Your task to perform on an android device: empty trash in google photos Image 0: 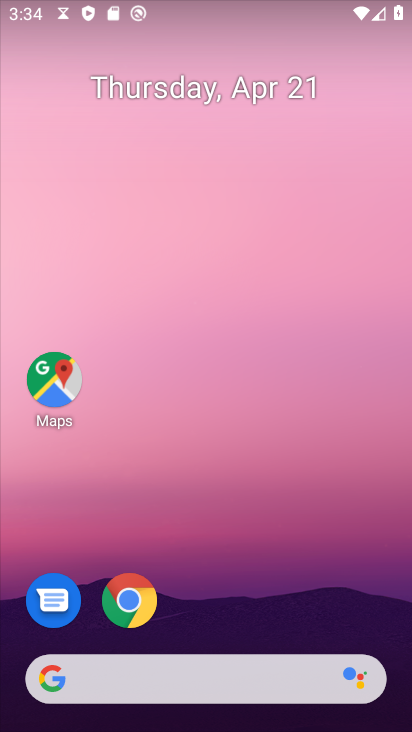
Step 0: drag from (237, 580) to (211, 42)
Your task to perform on an android device: empty trash in google photos Image 1: 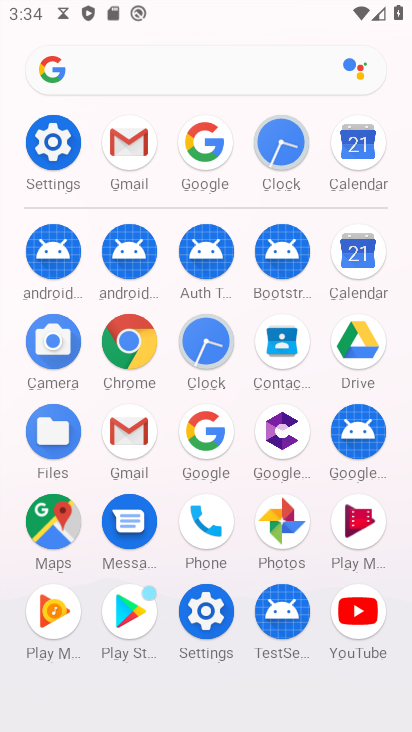
Step 1: click (282, 520)
Your task to perform on an android device: empty trash in google photos Image 2: 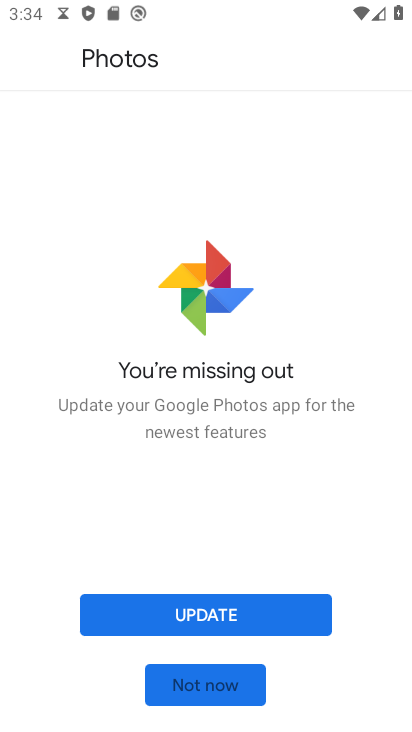
Step 2: click (231, 605)
Your task to perform on an android device: empty trash in google photos Image 3: 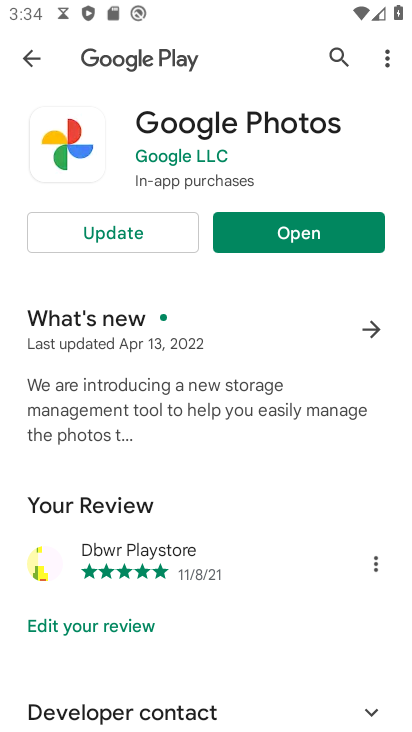
Step 3: click (142, 221)
Your task to perform on an android device: empty trash in google photos Image 4: 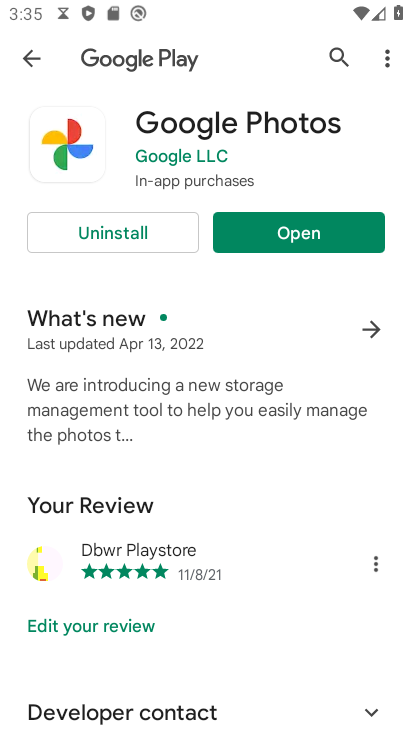
Step 4: click (291, 234)
Your task to perform on an android device: empty trash in google photos Image 5: 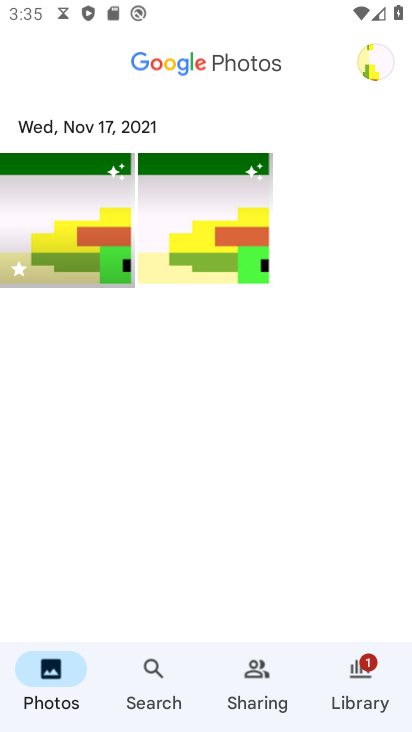
Step 5: click (363, 675)
Your task to perform on an android device: empty trash in google photos Image 6: 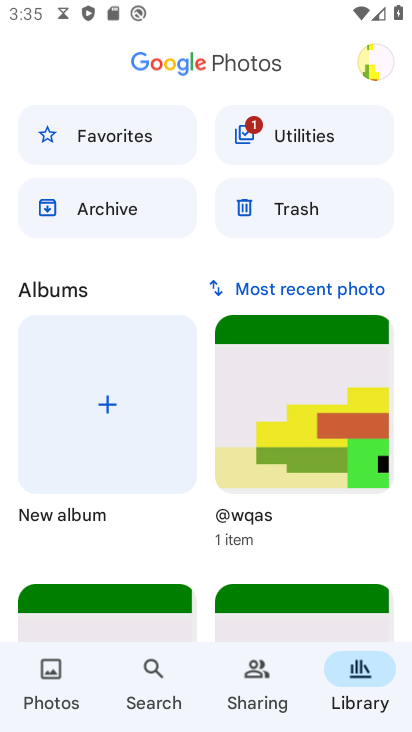
Step 6: click (308, 213)
Your task to perform on an android device: empty trash in google photos Image 7: 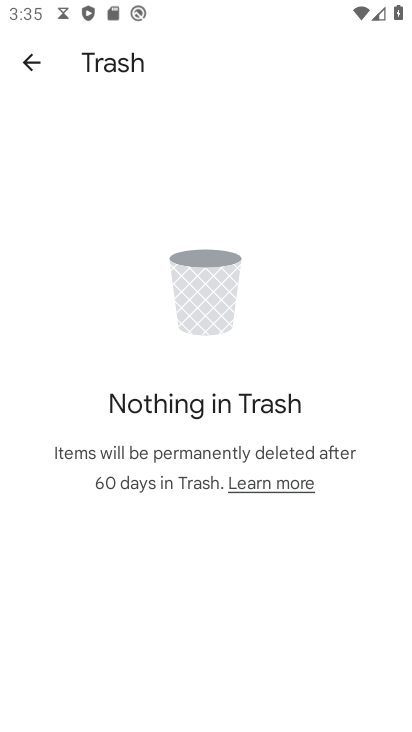
Step 7: task complete